Your task to perform on an android device: Open accessibility settings Image 0: 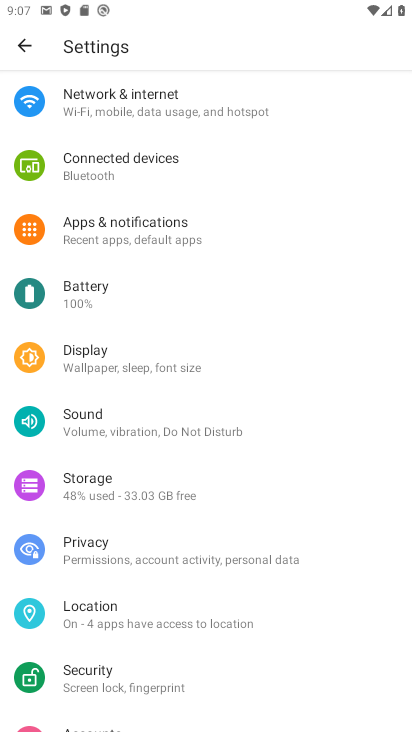
Step 0: drag from (193, 687) to (220, 406)
Your task to perform on an android device: Open accessibility settings Image 1: 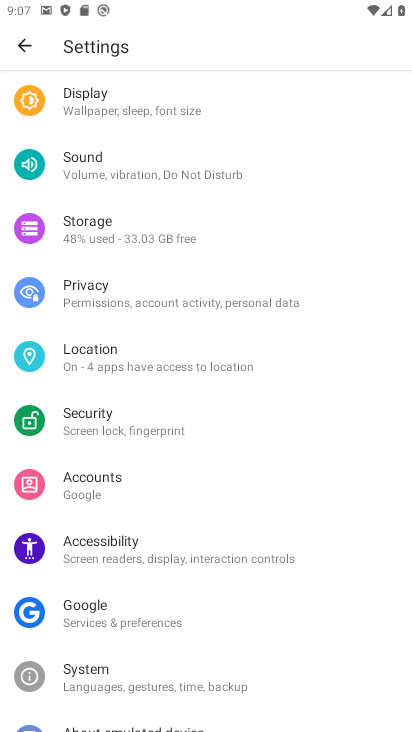
Step 1: drag from (278, 633) to (328, 349)
Your task to perform on an android device: Open accessibility settings Image 2: 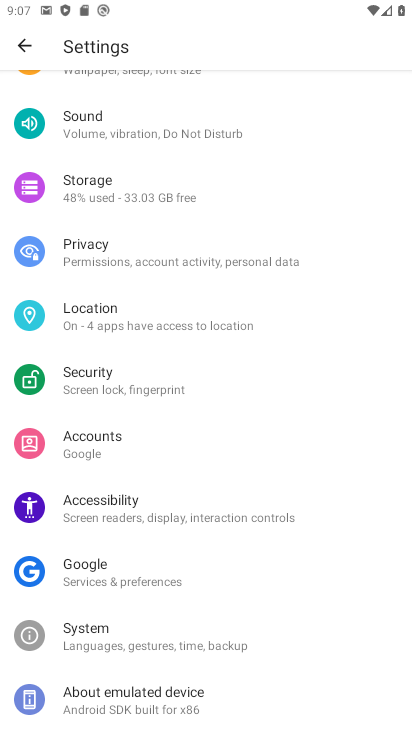
Step 2: drag from (291, 663) to (322, 425)
Your task to perform on an android device: Open accessibility settings Image 3: 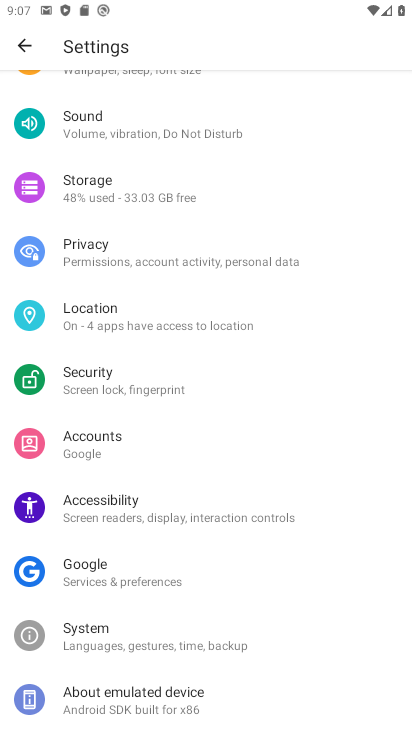
Step 3: click (130, 502)
Your task to perform on an android device: Open accessibility settings Image 4: 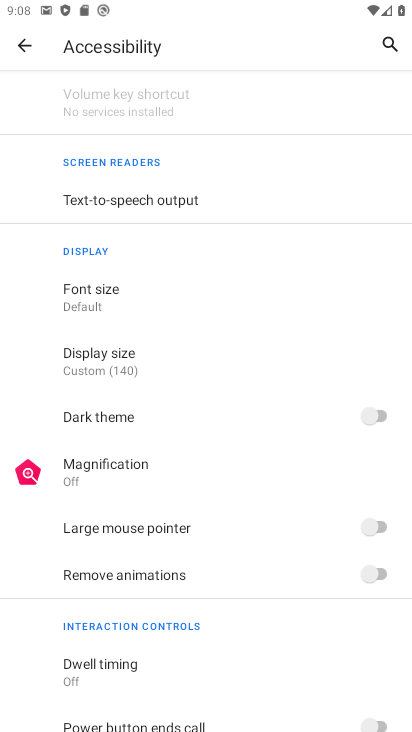
Step 4: task complete